Your task to perform on an android device: Go to Google Image 0: 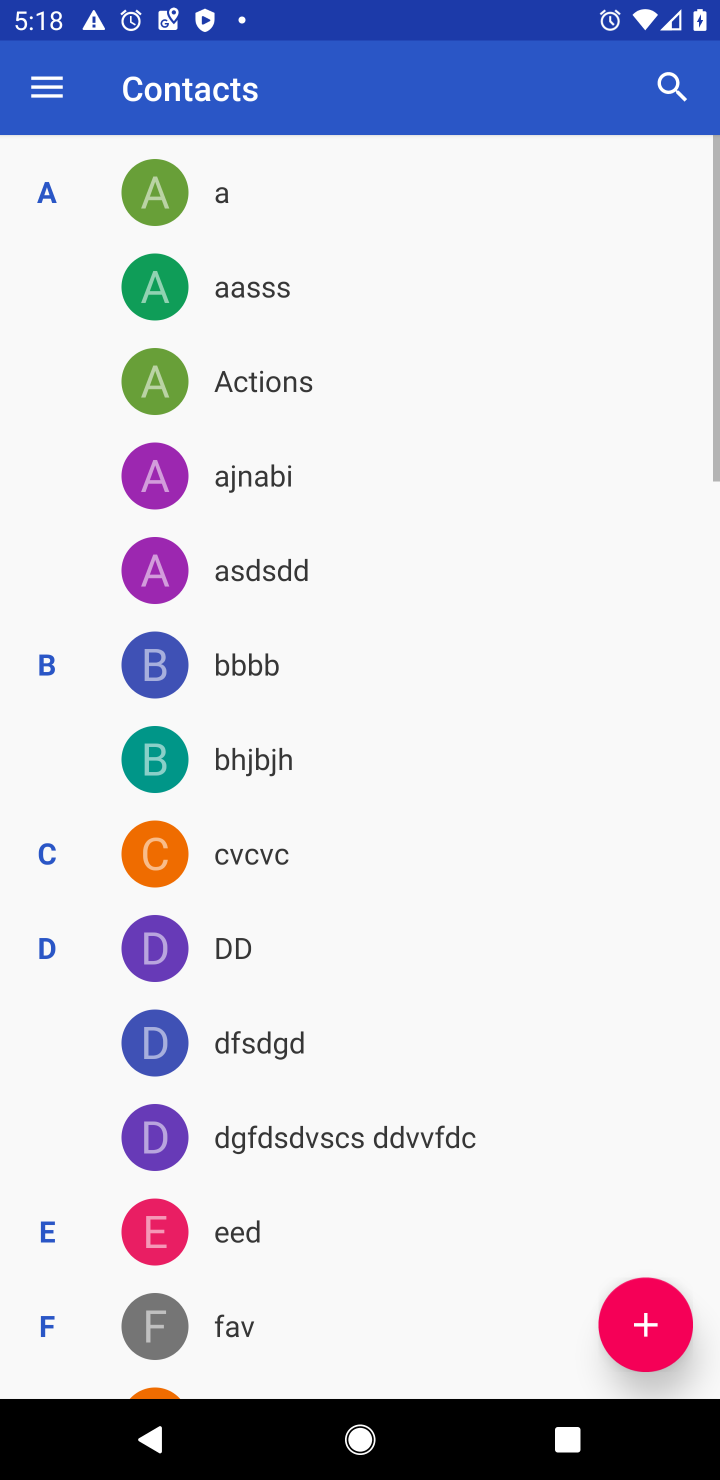
Step 0: press home button
Your task to perform on an android device: Go to Google Image 1: 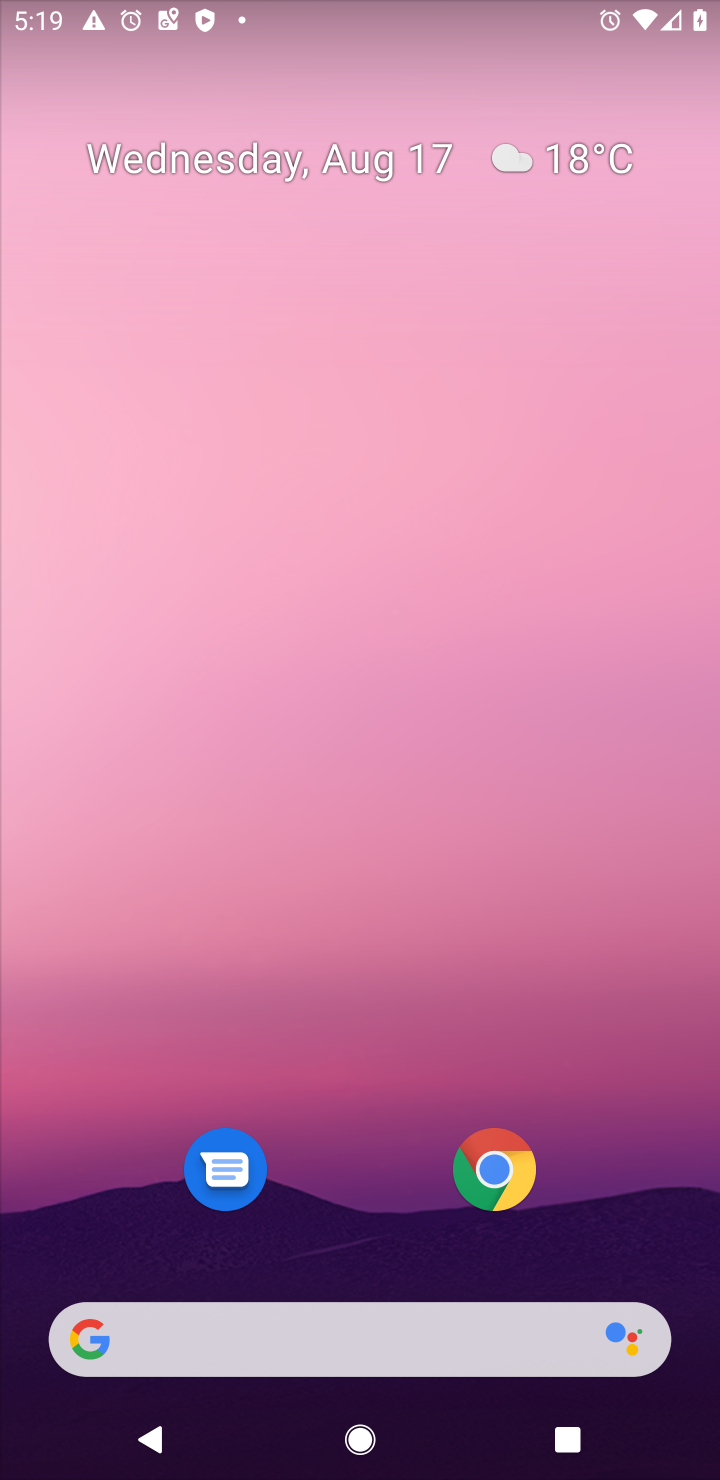
Step 1: drag from (376, 1254) to (390, 157)
Your task to perform on an android device: Go to Google Image 2: 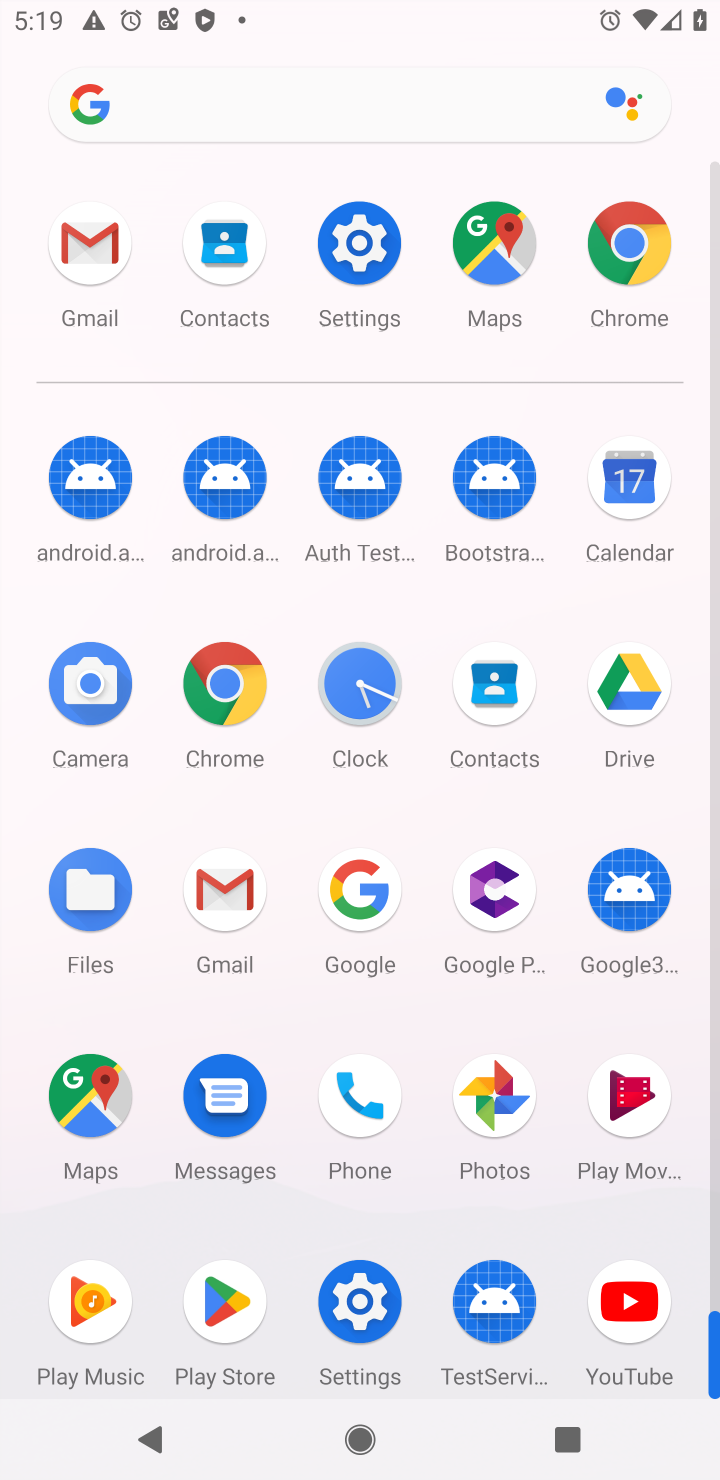
Step 2: click (358, 890)
Your task to perform on an android device: Go to Google Image 3: 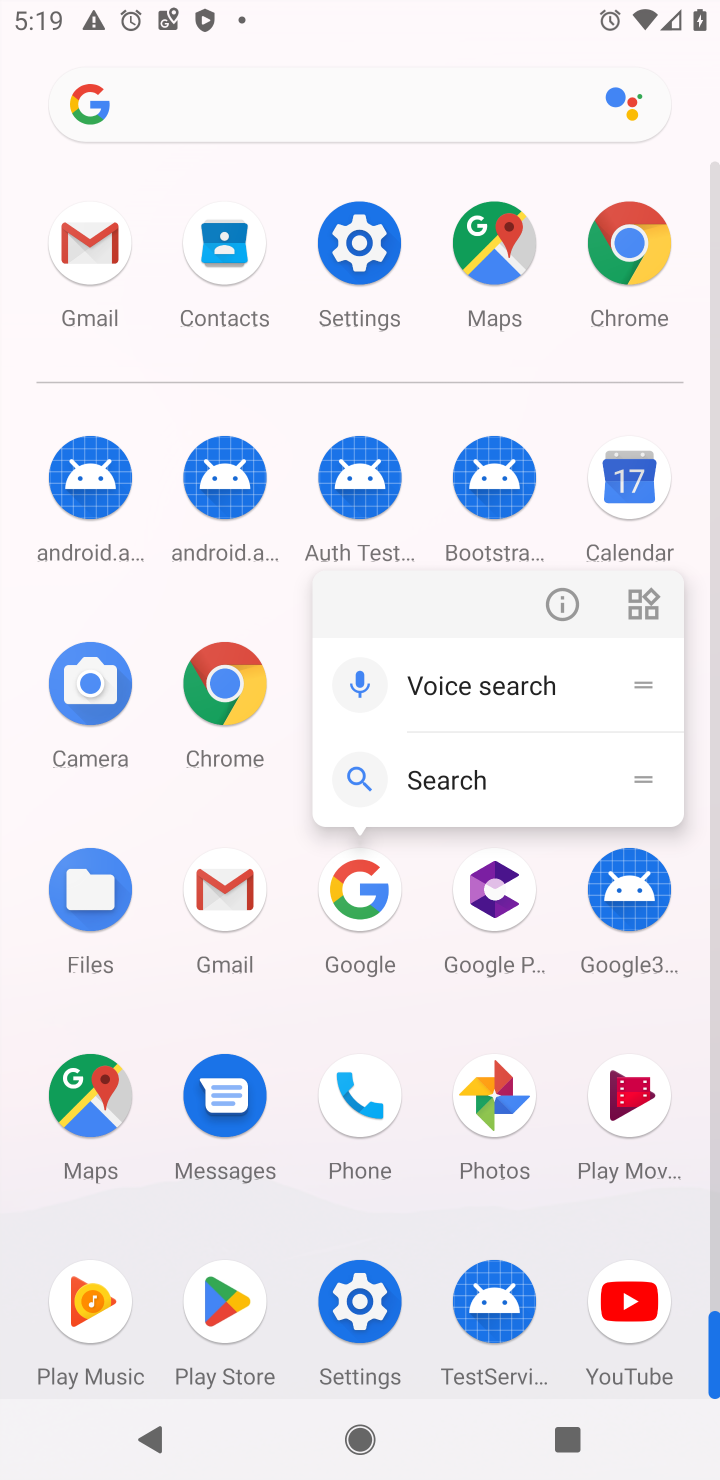
Step 3: click (354, 893)
Your task to perform on an android device: Go to Google Image 4: 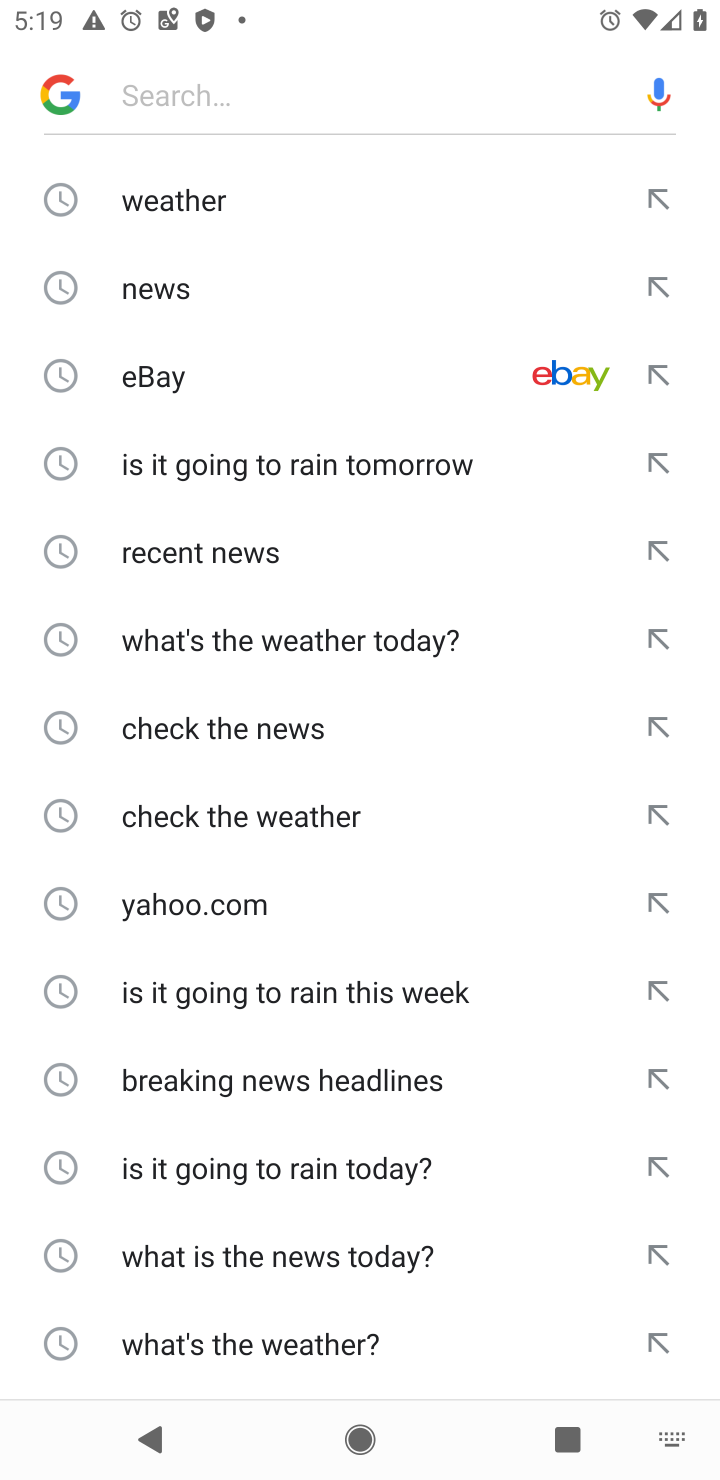
Step 4: click (354, 893)
Your task to perform on an android device: Go to Google Image 5: 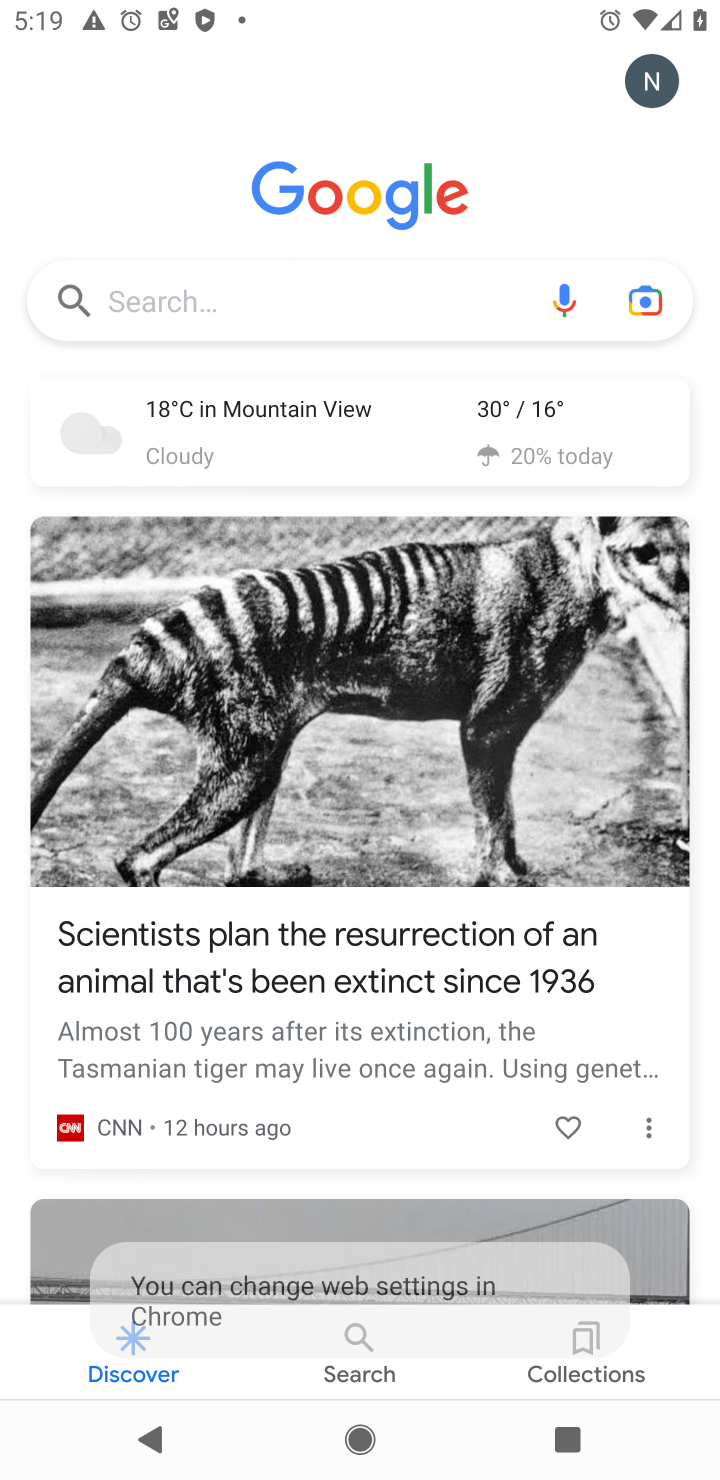
Step 5: task complete